Your task to perform on an android device: open a new tab in the chrome app Image 0: 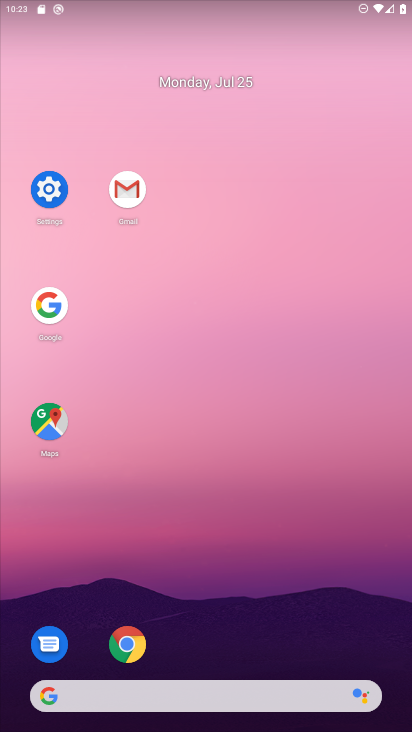
Step 0: click (131, 632)
Your task to perform on an android device: open a new tab in the chrome app Image 1: 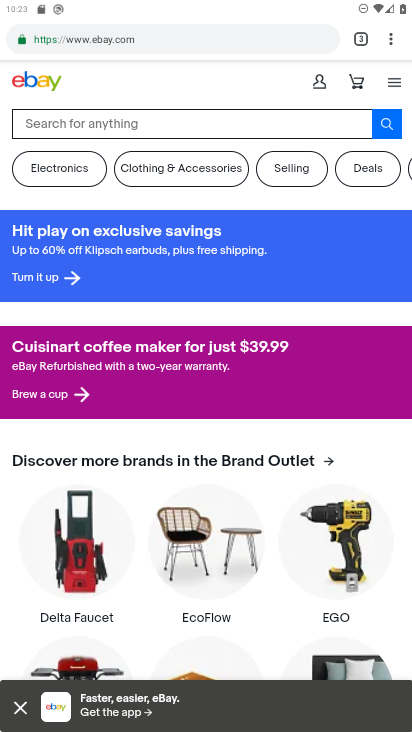
Step 1: click (384, 41)
Your task to perform on an android device: open a new tab in the chrome app Image 2: 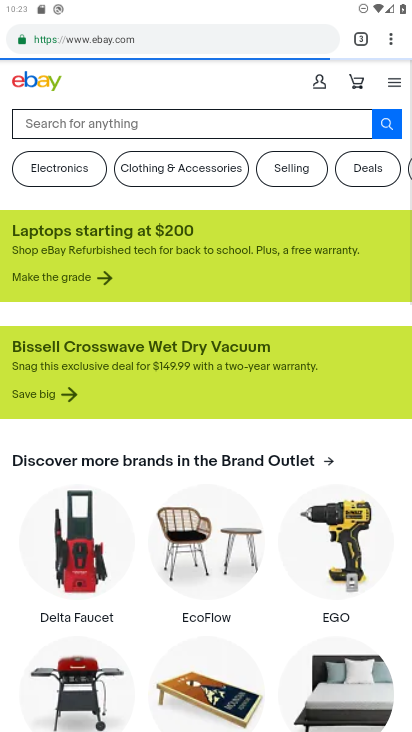
Step 2: click (359, 40)
Your task to perform on an android device: open a new tab in the chrome app Image 3: 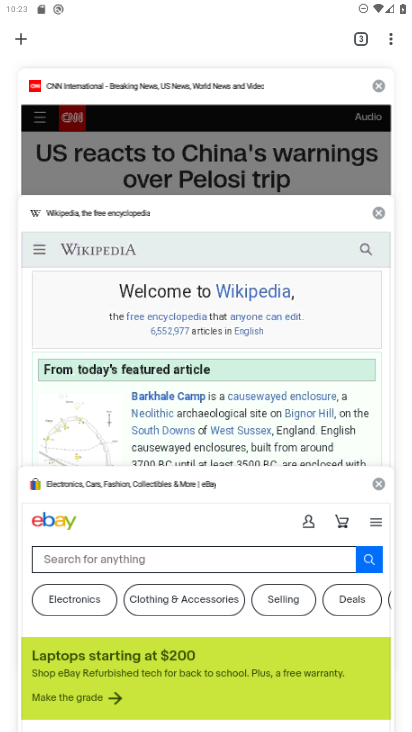
Step 3: click (8, 31)
Your task to perform on an android device: open a new tab in the chrome app Image 4: 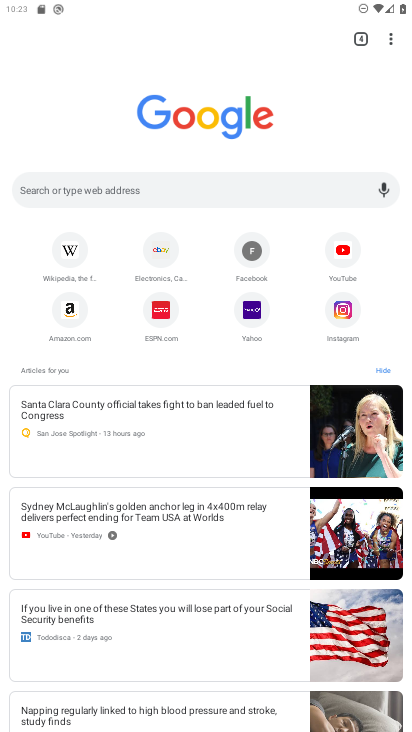
Step 4: task complete